Your task to perform on an android device: move an email to a new category in the gmail app Image 0: 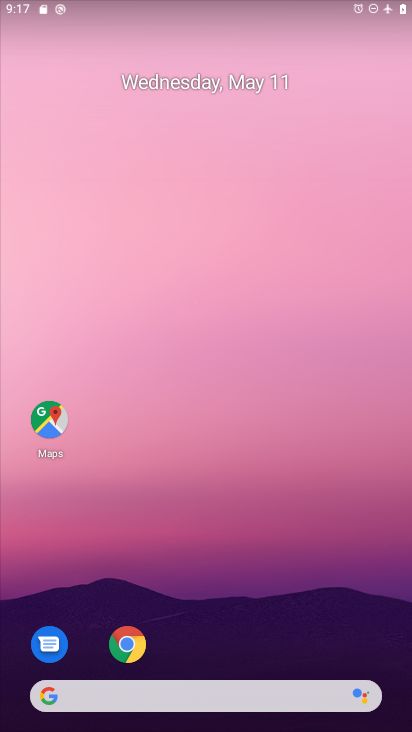
Step 0: drag from (217, 543) to (157, 254)
Your task to perform on an android device: move an email to a new category in the gmail app Image 1: 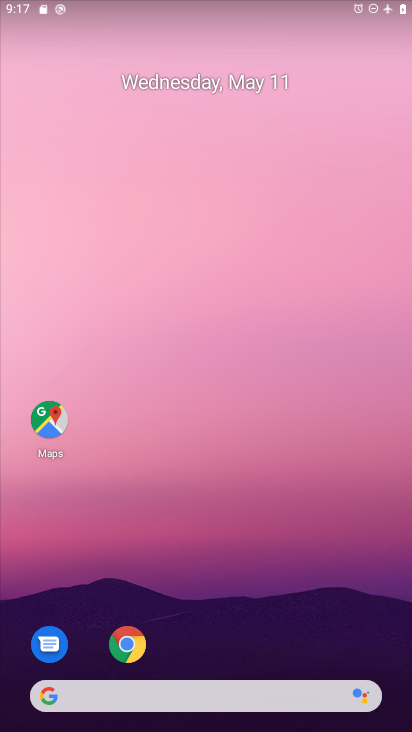
Step 1: drag from (224, 617) to (198, 456)
Your task to perform on an android device: move an email to a new category in the gmail app Image 2: 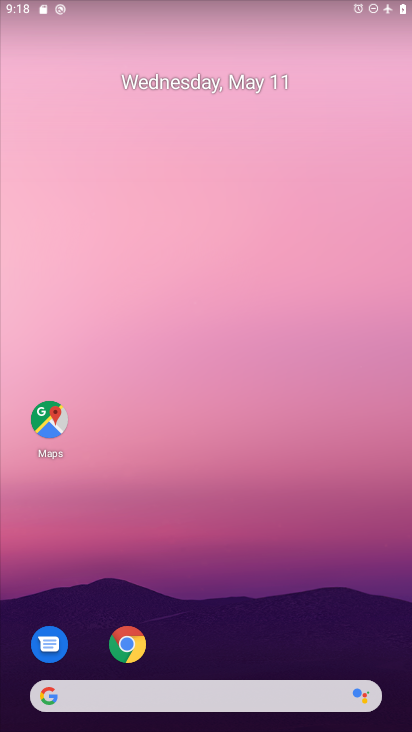
Step 2: click (137, 649)
Your task to perform on an android device: move an email to a new category in the gmail app Image 3: 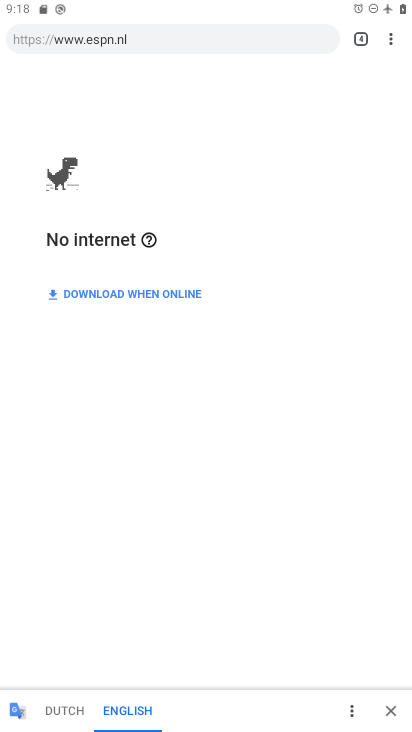
Step 3: task complete